Your task to perform on an android device: toggle notifications settings in the gmail app Image 0: 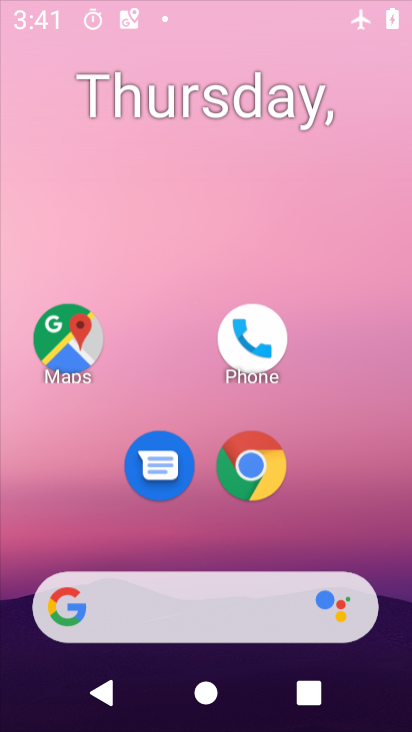
Step 0: drag from (209, 565) to (209, 184)
Your task to perform on an android device: toggle notifications settings in the gmail app Image 1: 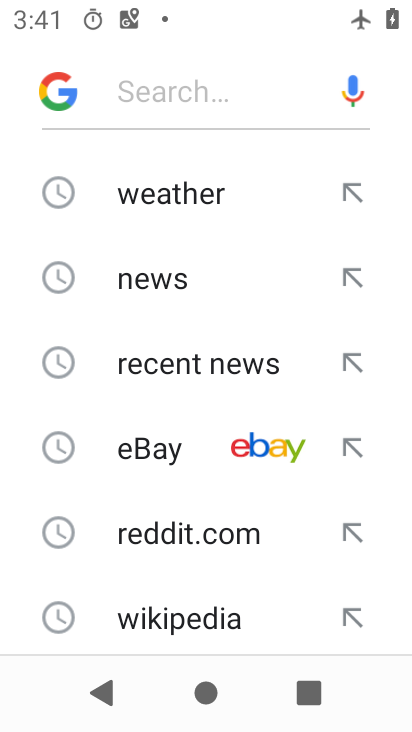
Step 1: press back button
Your task to perform on an android device: toggle notifications settings in the gmail app Image 2: 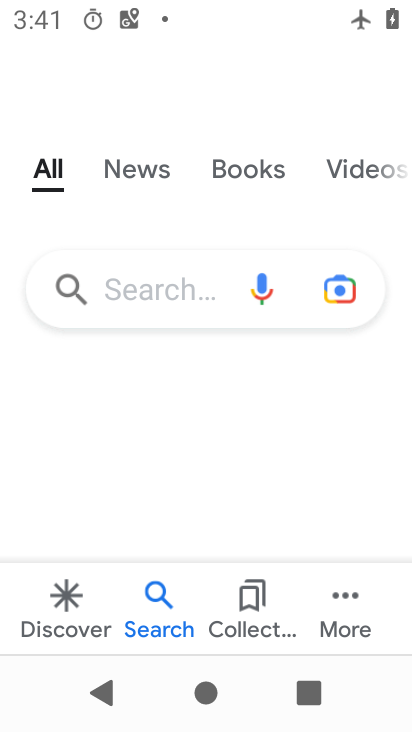
Step 2: press home button
Your task to perform on an android device: toggle notifications settings in the gmail app Image 3: 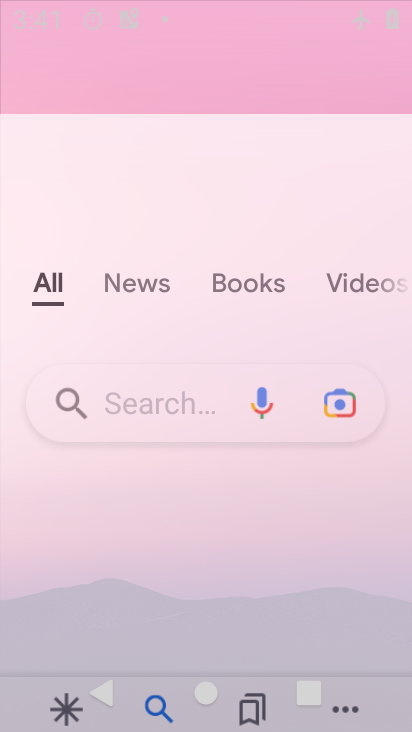
Step 3: drag from (160, 578) to (281, 48)
Your task to perform on an android device: toggle notifications settings in the gmail app Image 4: 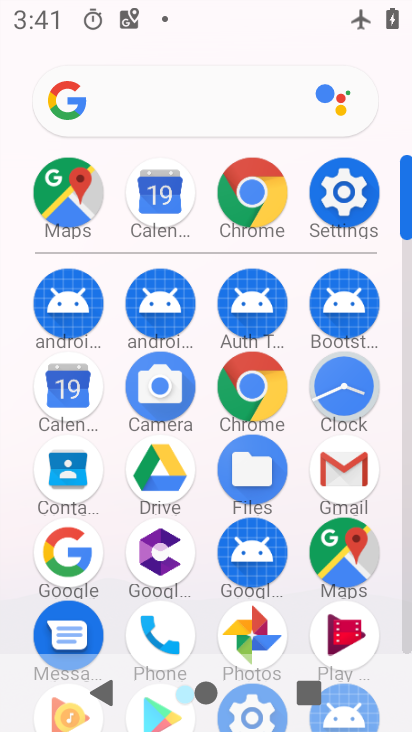
Step 4: click (342, 483)
Your task to perform on an android device: toggle notifications settings in the gmail app Image 5: 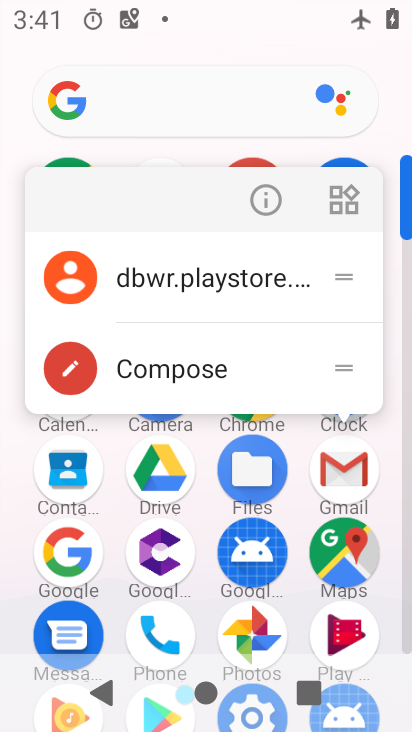
Step 5: click (183, 271)
Your task to perform on an android device: toggle notifications settings in the gmail app Image 6: 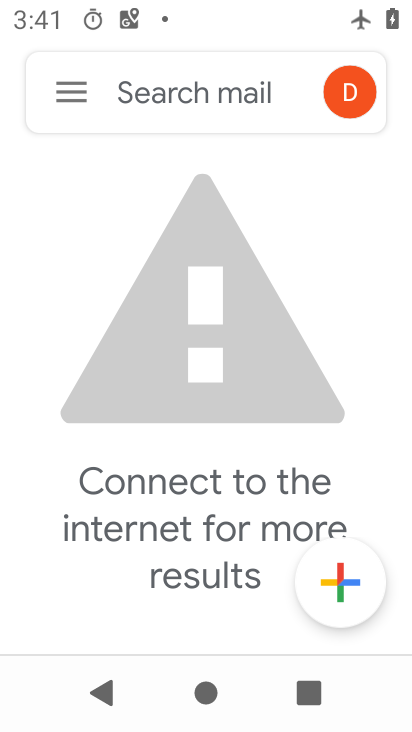
Step 6: click (62, 95)
Your task to perform on an android device: toggle notifications settings in the gmail app Image 7: 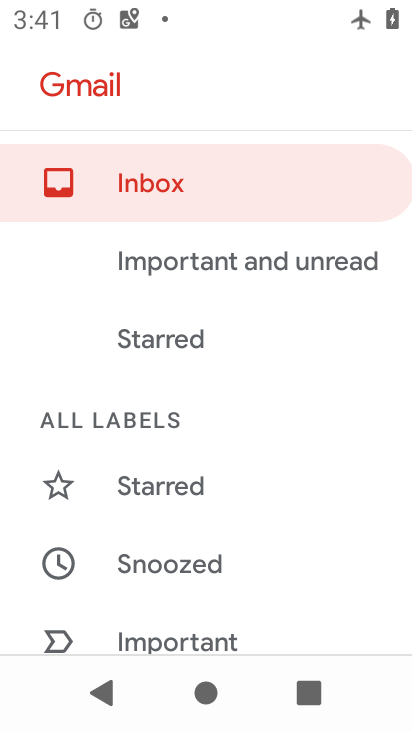
Step 7: drag from (151, 570) to (306, 0)
Your task to perform on an android device: toggle notifications settings in the gmail app Image 8: 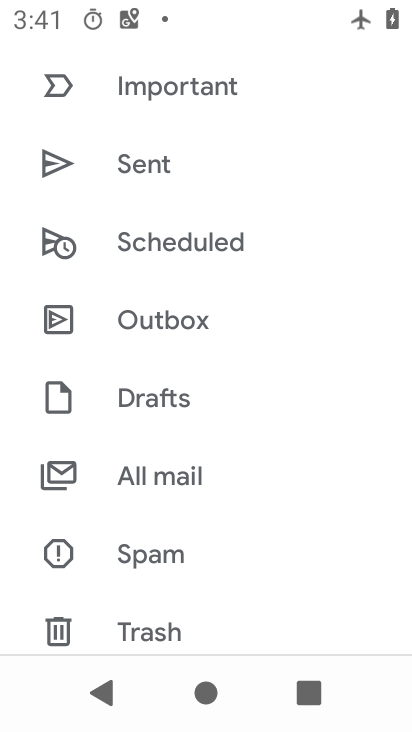
Step 8: drag from (195, 538) to (328, 26)
Your task to perform on an android device: toggle notifications settings in the gmail app Image 9: 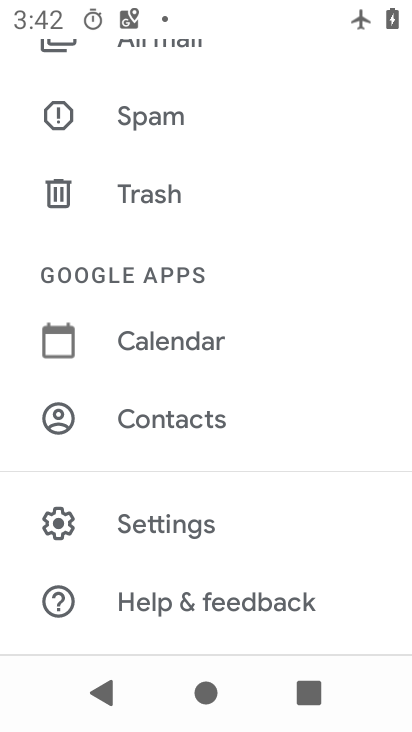
Step 9: click (158, 521)
Your task to perform on an android device: toggle notifications settings in the gmail app Image 10: 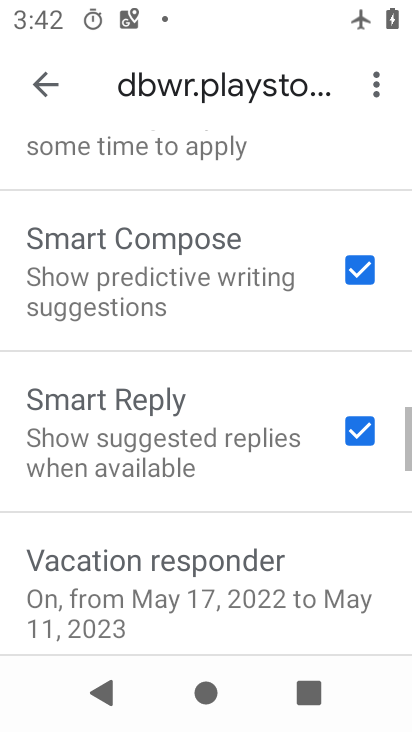
Step 10: drag from (206, 565) to (286, 171)
Your task to perform on an android device: toggle notifications settings in the gmail app Image 11: 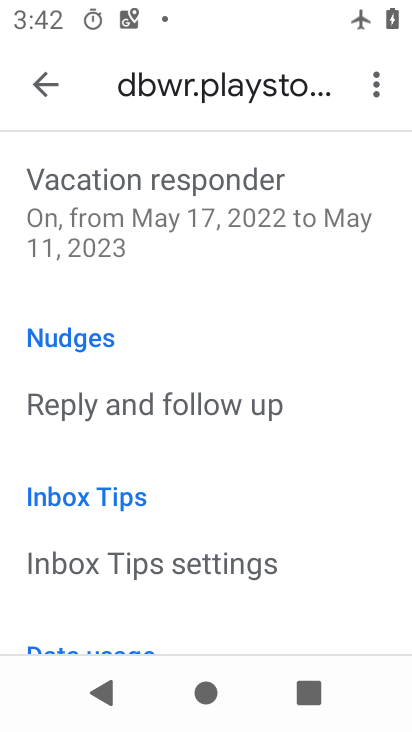
Step 11: drag from (226, 228) to (249, 711)
Your task to perform on an android device: toggle notifications settings in the gmail app Image 12: 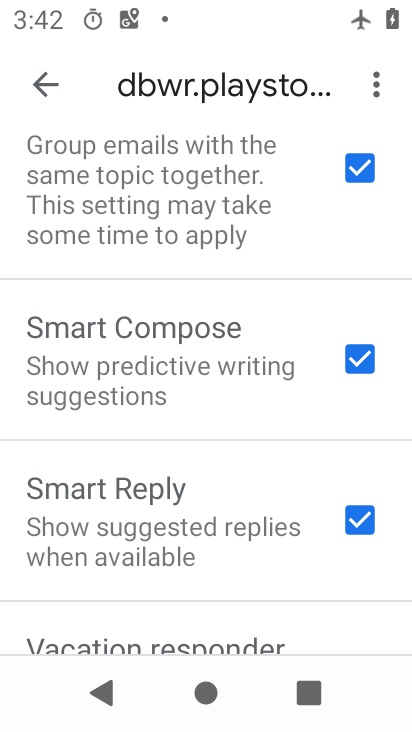
Step 12: drag from (218, 246) to (243, 630)
Your task to perform on an android device: toggle notifications settings in the gmail app Image 13: 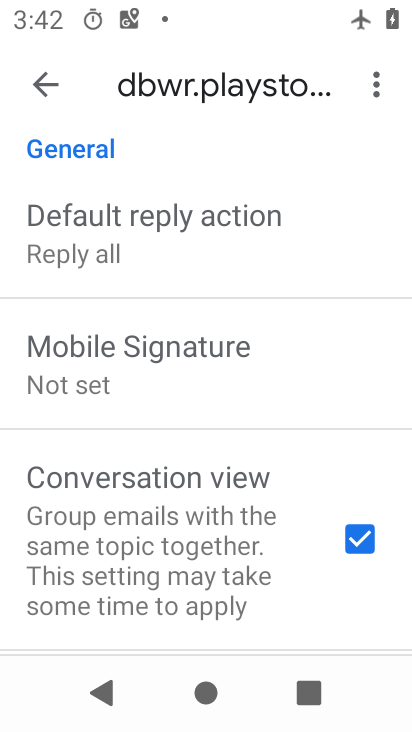
Step 13: drag from (191, 259) to (216, 608)
Your task to perform on an android device: toggle notifications settings in the gmail app Image 14: 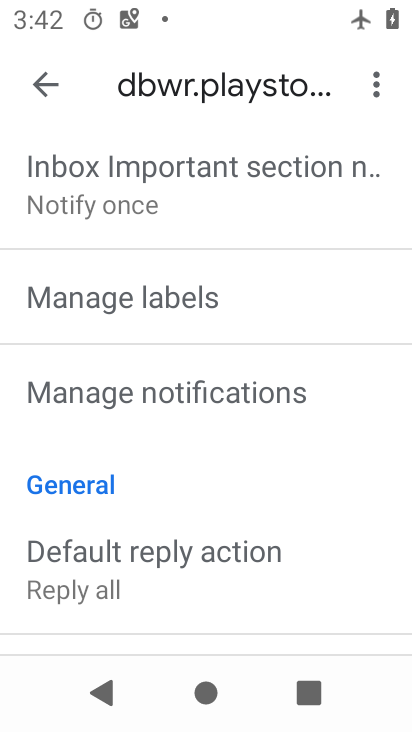
Step 14: click (161, 389)
Your task to perform on an android device: toggle notifications settings in the gmail app Image 15: 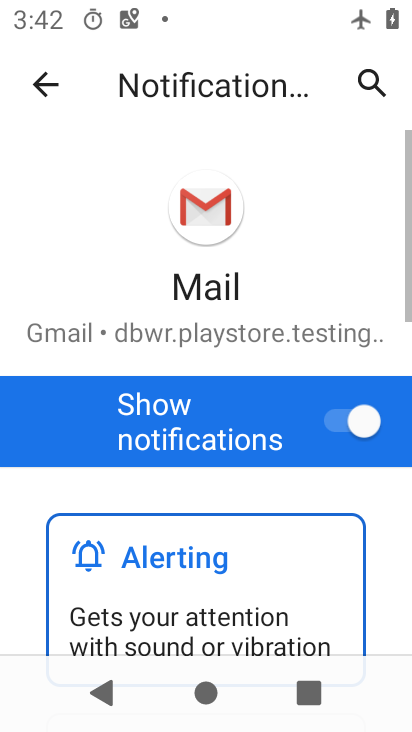
Step 15: drag from (196, 527) to (243, 269)
Your task to perform on an android device: toggle notifications settings in the gmail app Image 16: 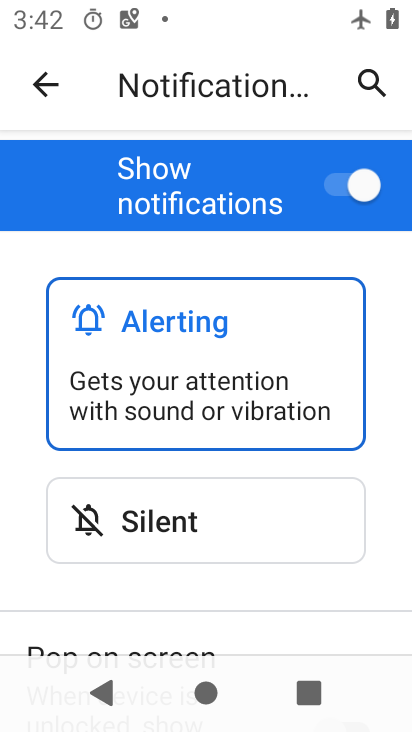
Step 16: click (342, 192)
Your task to perform on an android device: toggle notifications settings in the gmail app Image 17: 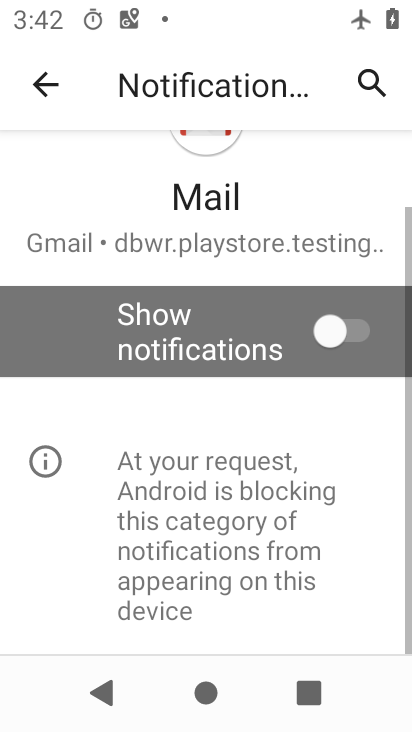
Step 17: task complete